Your task to perform on an android device: What is the news today? Image 0: 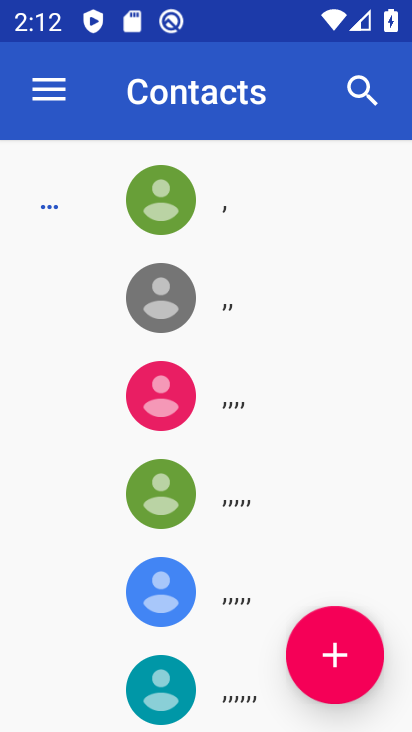
Step 0: press home button
Your task to perform on an android device: What is the news today? Image 1: 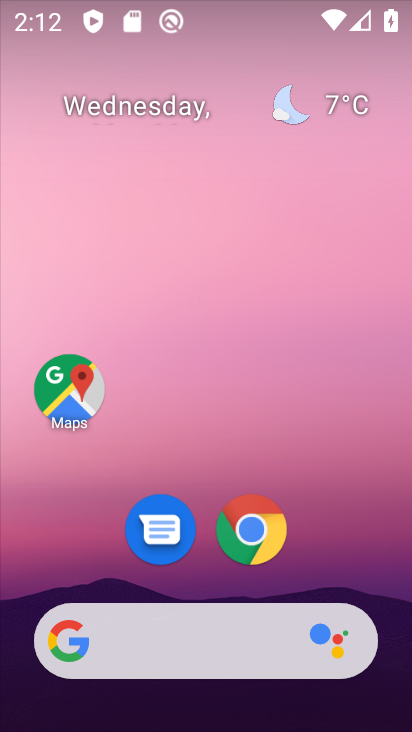
Step 1: drag from (355, 556) to (315, 122)
Your task to perform on an android device: What is the news today? Image 2: 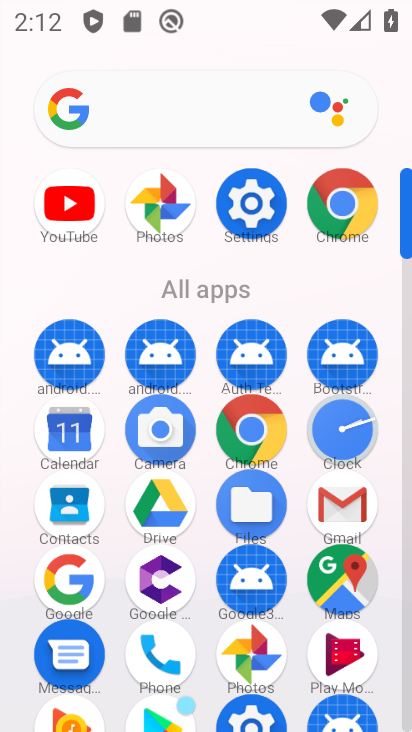
Step 2: click (317, 226)
Your task to perform on an android device: What is the news today? Image 3: 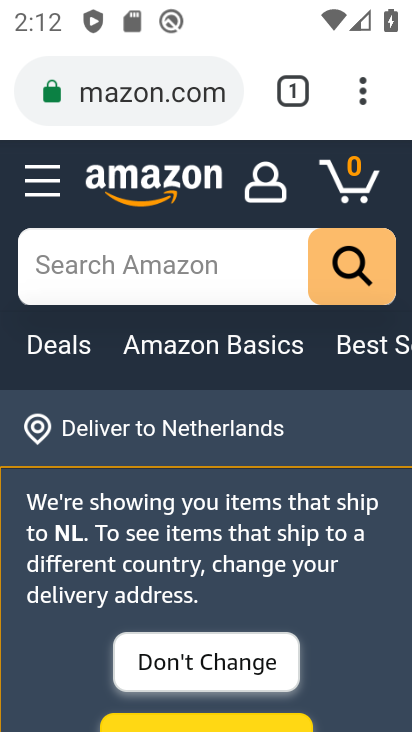
Step 3: task complete